Your task to perform on an android device: toggle improve location accuracy Image 0: 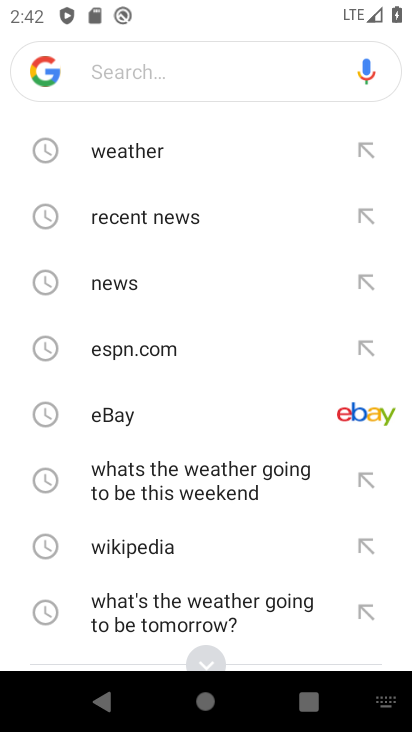
Step 0: press home button
Your task to perform on an android device: toggle improve location accuracy Image 1: 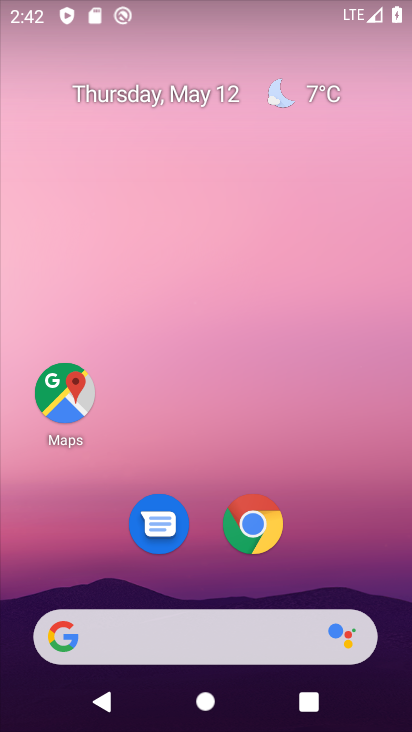
Step 1: drag from (234, 429) to (260, 214)
Your task to perform on an android device: toggle improve location accuracy Image 2: 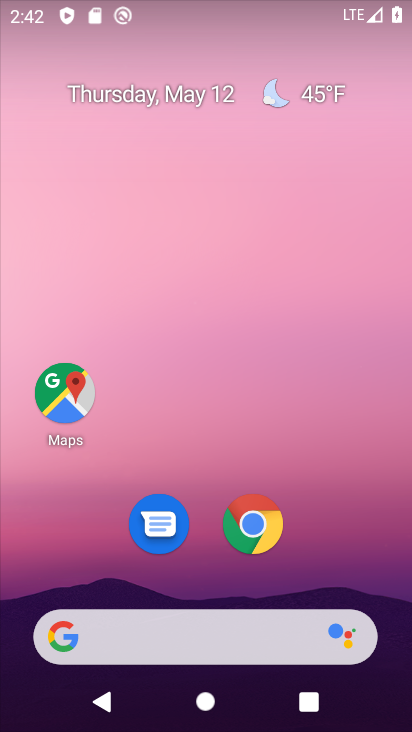
Step 2: drag from (341, 540) to (378, 138)
Your task to perform on an android device: toggle improve location accuracy Image 3: 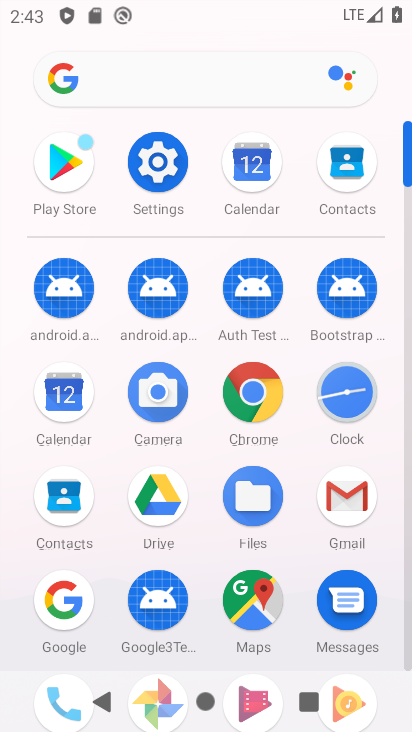
Step 3: click (173, 154)
Your task to perform on an android device: toggle improve location accuracy Image 4: 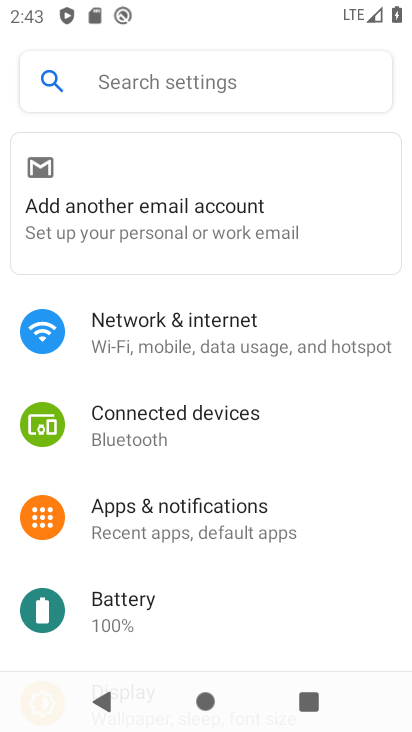
Step 4: drag from (207, 557) to (254, 121)
Your task to perform on an android device: toggle improve location accuracy Image 5: 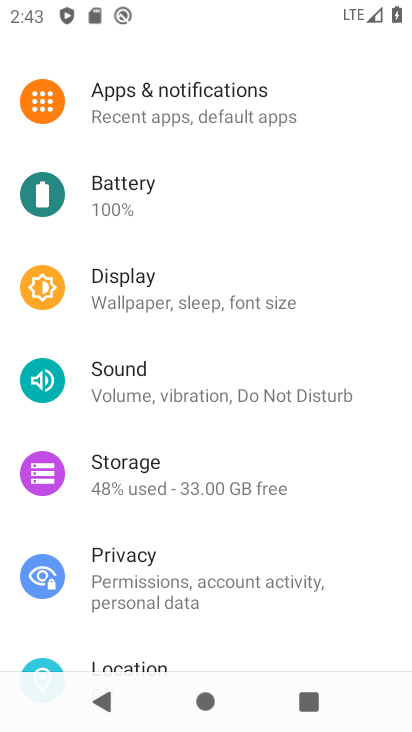
Step 5: drag from (179, 532) to (197, 165)
Your task to perform on an android device: toggle improve location accuracy Image 6: 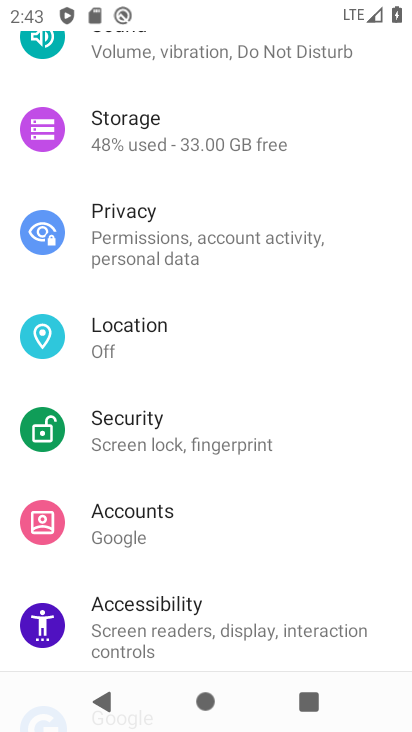
Step 6: click (185, 336)
Your task to perform on an android device: toggle improve location accuracy Image 7: 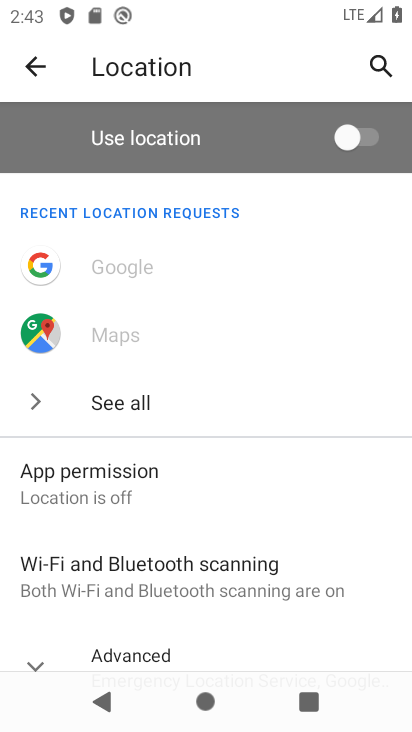
Step 7: click (37, 656)
Your task to perform on an android device: toggle improve location accuracy Image 8: 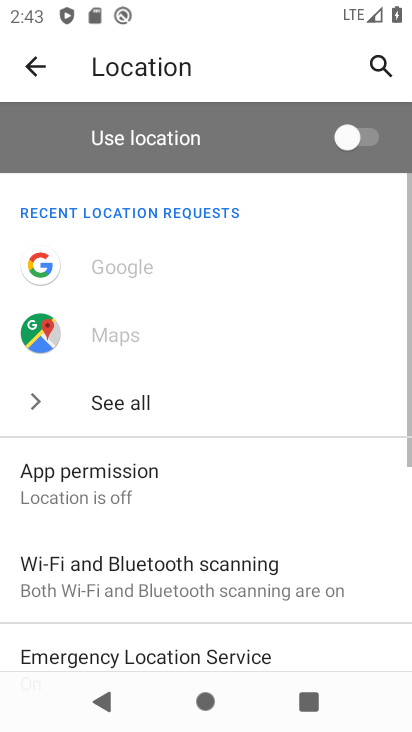
Step 8: drag from (226, 499) to (276, 75)
Your task to perform on an android device: toggle improve location accuracy Image 9: 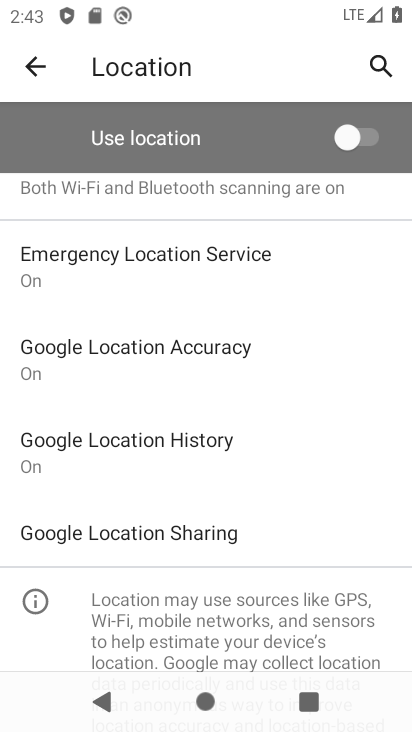
Step 9: click (202, 356)
Your task to perform on an android device: toggle improve location accuracy Image 10: 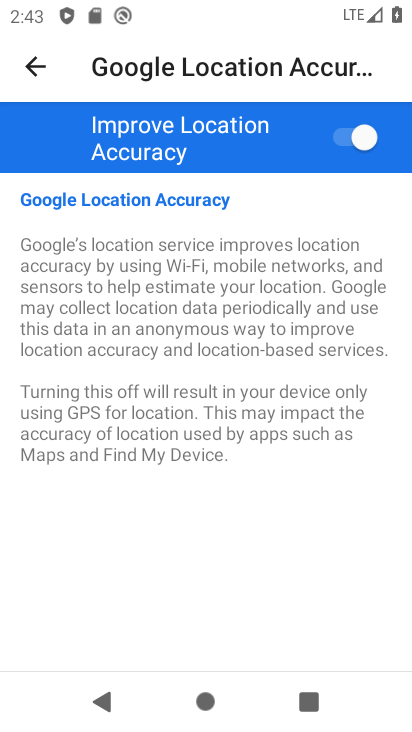
Step 10: click (346, 136)
Your task to perform on an android device: toggle improve location accuracy Image 11: 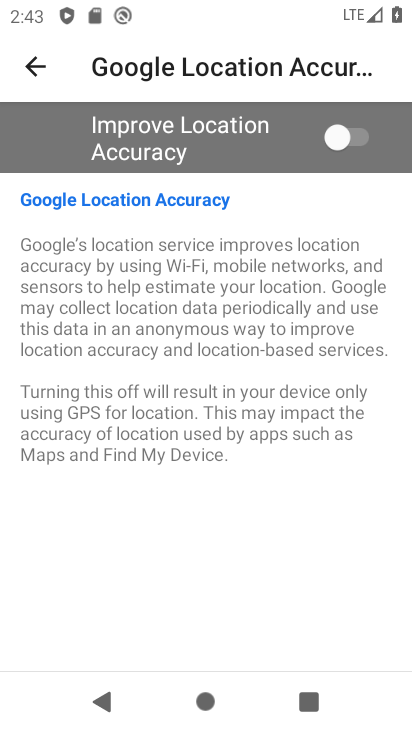
Step 11: task complete